Your task to perform on an android device: Search for hotels in London Image 0: 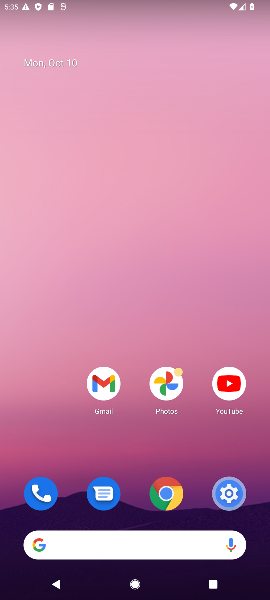
Step 0: click (152, 550)
Your task to perform on an android device: Search for hotels in London Image 1: 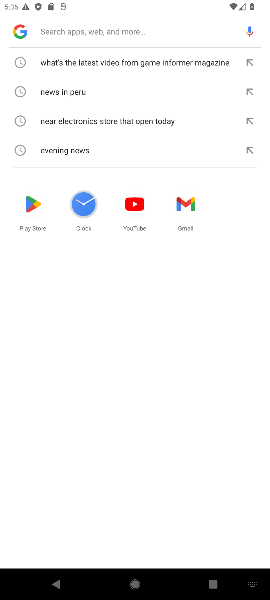
Step 1: type " hotels in London"
Your task to perform on an android device: Search for hotels in London Image 2: 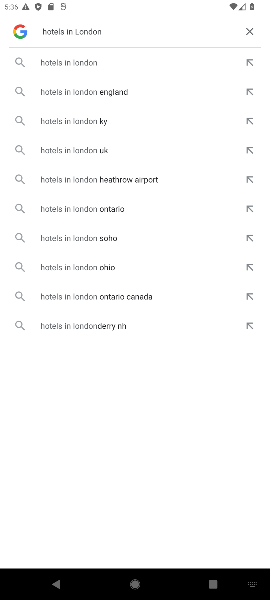
Step 2: click (77, 59)
Your task to perform on an android device: Search for hotels in London Image 3: 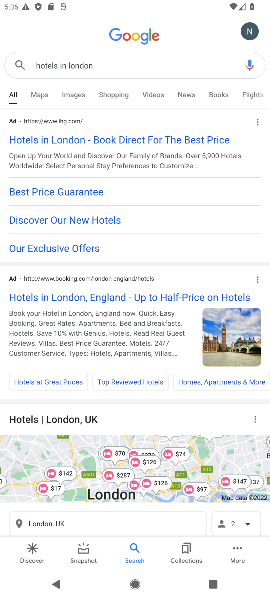
Step 3: task complete